Your task to perform on an android device: What's the weather going to be this weekend? Image 0: 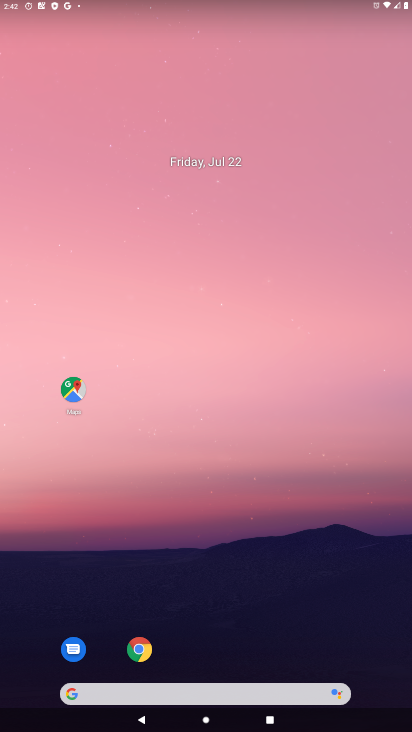
Step 0: drag from (298, 620) to (278, 107)
Your task to perform on an android device: What's the weather going to be this weekend? Image 1: 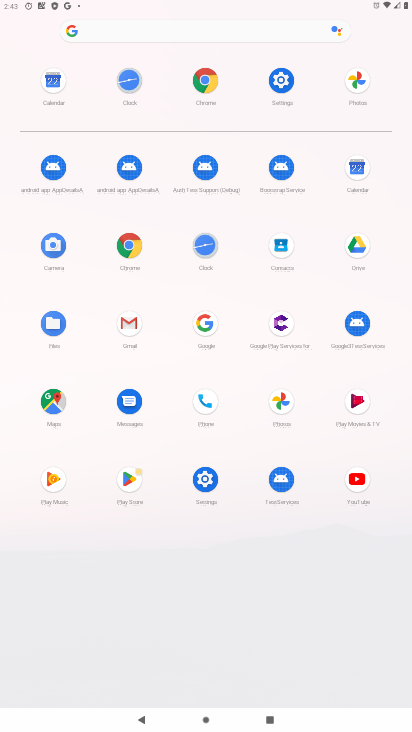
Step 1: click (133, 240)
Your task to perform on an android device: What's the weather going to be this weekend? Image 2: 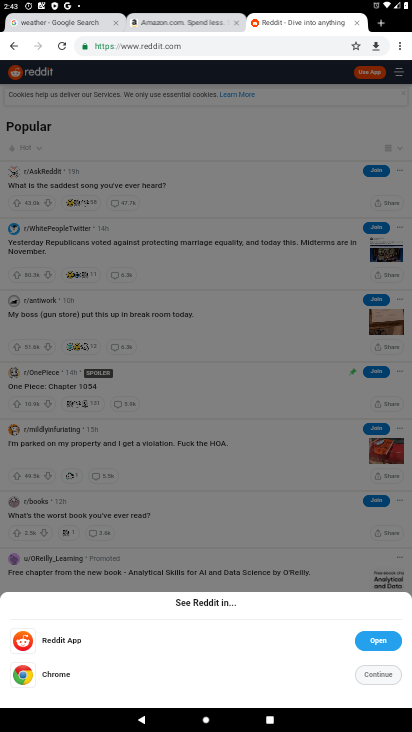
Step 2: click (210, 45)
Your task to perform on an android device: What's the weather going to be this weekend? Image 3: 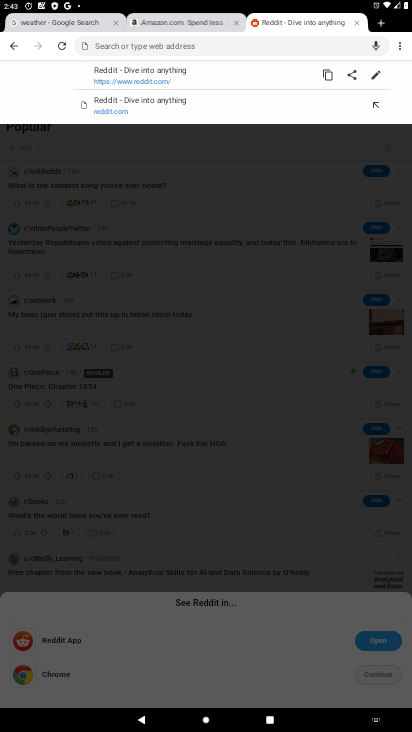
Step 3: type "weather"
Your task to perform on an android device: What's the weather going to be this weekend? Image 4: 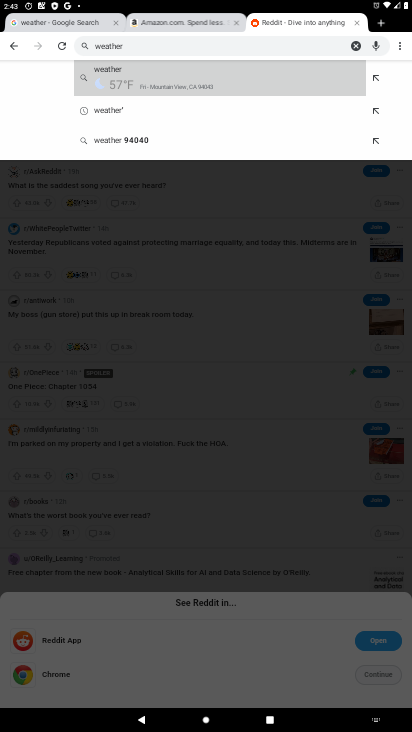
Step 4: click (126, 81)
Your task to perform on an android device: What's the weather going to be this weekend? Image 5: 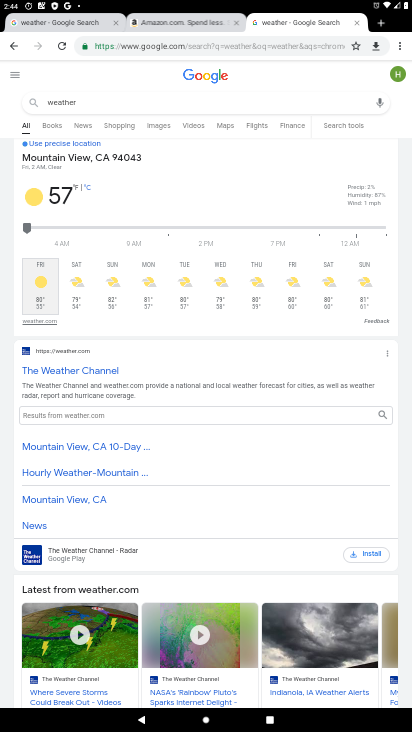
Step 5: click (87, 282)
Your task to perform on an android device: What's the weather going to be this weekend? Image 6: 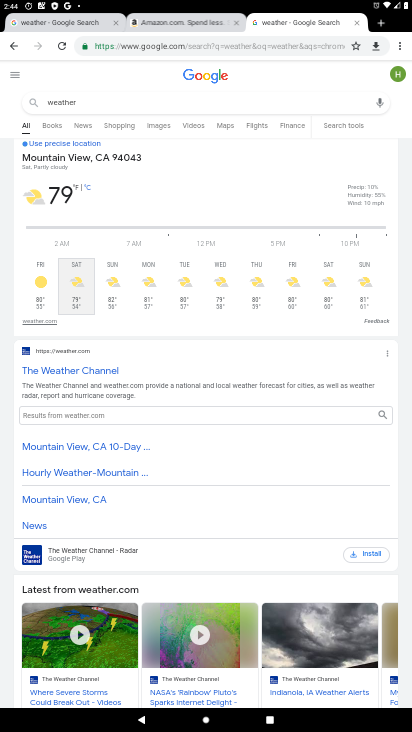
Step 6: task complete